Your task to perform on an android device: check data usage Image 0: 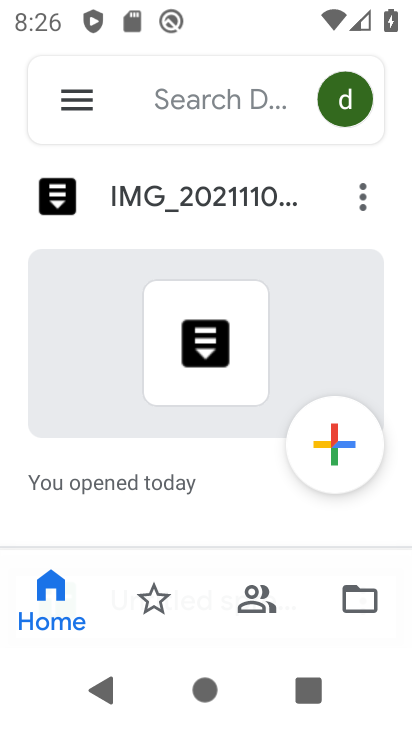
Step 0: press back button
Your task to perform on an android device: check data usage Image 1: 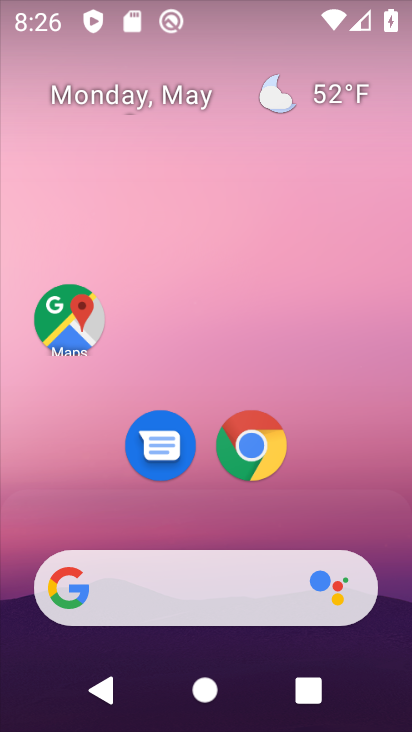
Step 1: drag from (123, 563) to (318, 0)
Your task to perform on an android device: check data usage Image 2: 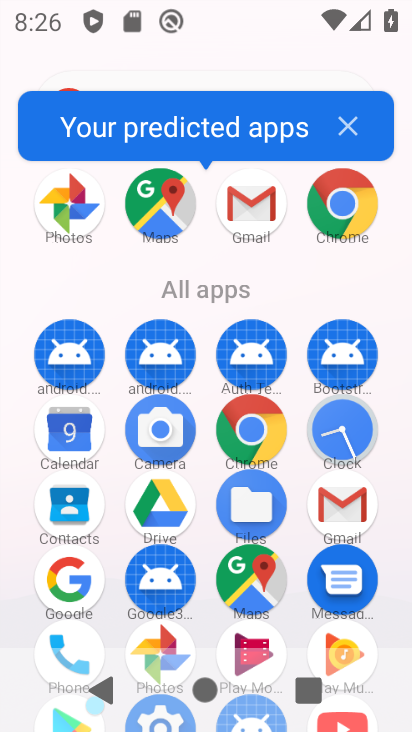
Step 2: drag from (169, 641) to (261, 321)
Your task to perform on an android device: check data usage Image 3: 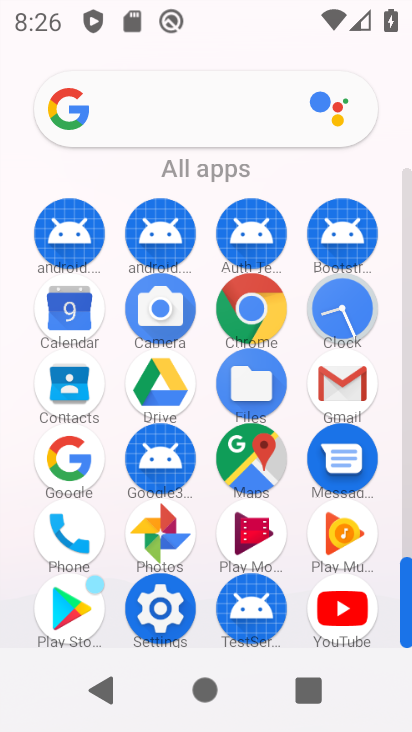
Step 3: click (166, 592)
Your task to perform on an android device: check data usage Image 4: 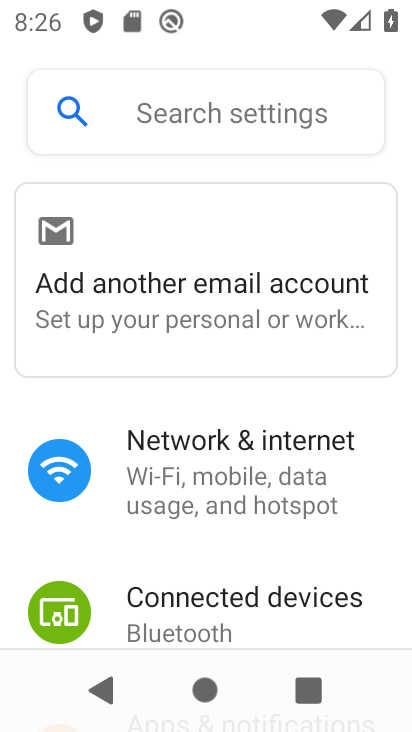
Step 4: click (244, 476)
Your task to perform on an android device: check data usage Image 5: 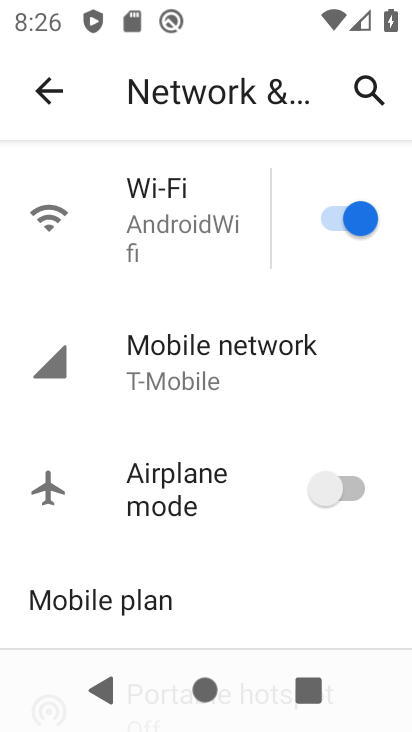
Step 5: click (206, 361)
Your task to perform on an android device: check data usage Image 6: 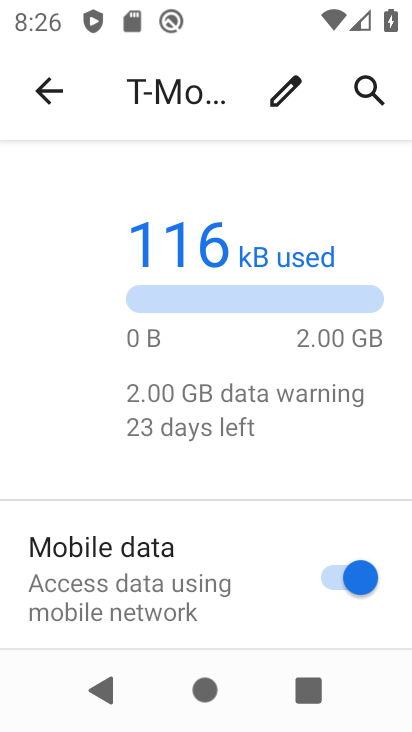
Step 6: drag from (151, 598) to (220, 318)
Your task to perform on an android device: check data usage Image 7: 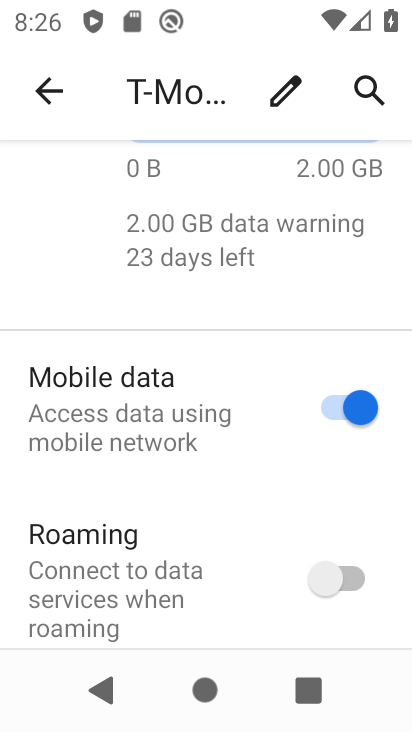
Step 7: drag from (154, 598) to (258, 247)
Your task to perform on an android device: check data usage Image 8: 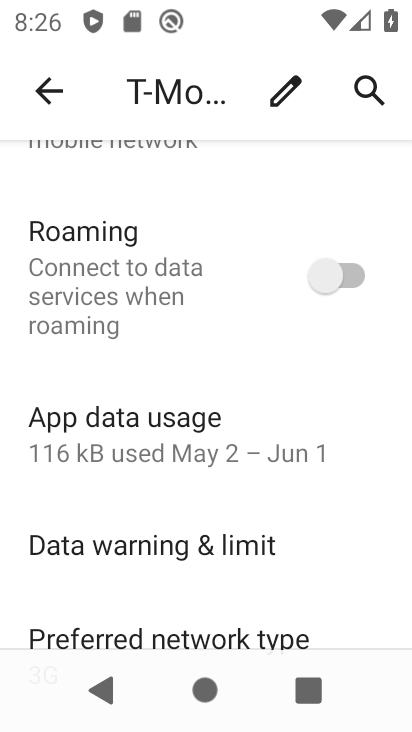
Step 8: click (186, 465)
Your task to perform on an android device: check data usage Image 9: 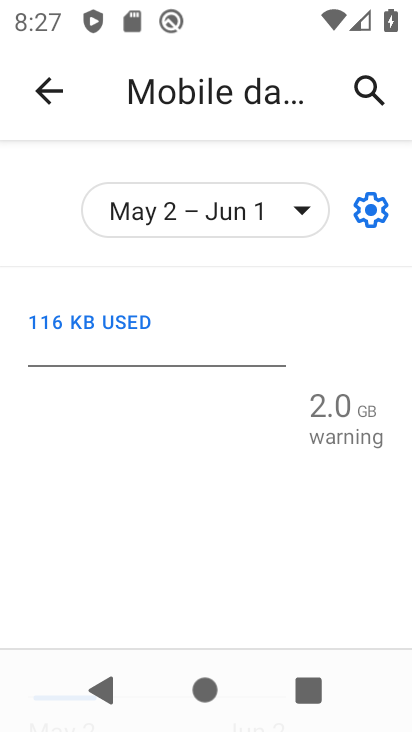
Step 9: task complete